Your task to perform on an android device: refresh tabs in the chrome app Image 0: 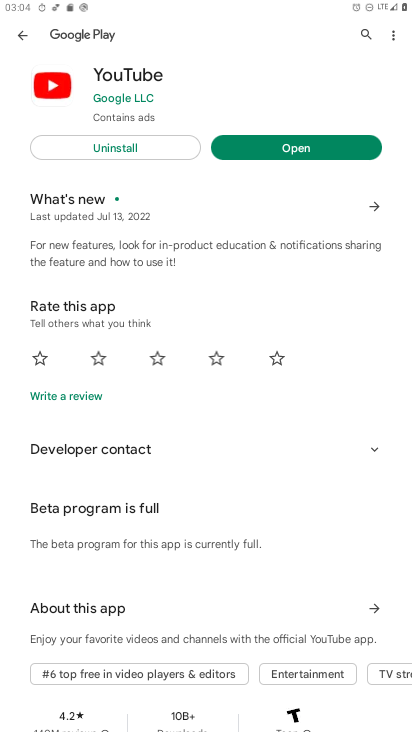
Step 0: press home button
Your task to perform on an android device: refresh tabs in the chrome app Image 1: 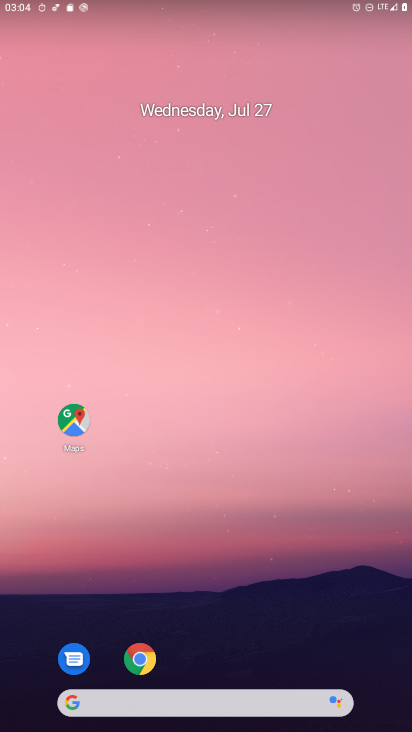
Step 1: drag from (238, 540) to (241, 104)
Your task to perform on an android device: refresh tabs in the chrome app Image 2: 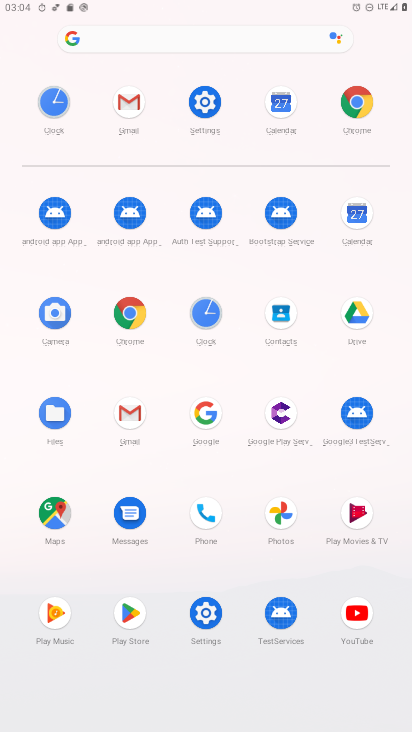
Step 2: click (133, 314)
Your task to perform on an android device: refresh tabs in the chrome app Image 3: 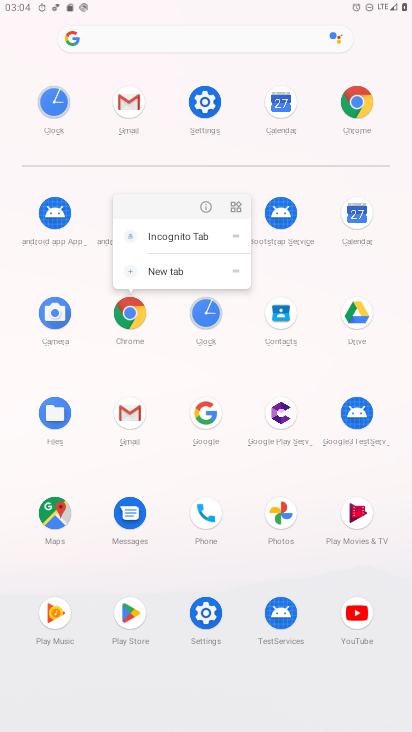
Step 3: click (133, 314)
Your task to perform on an android device: refresh tabs in the chrome app Image 4: 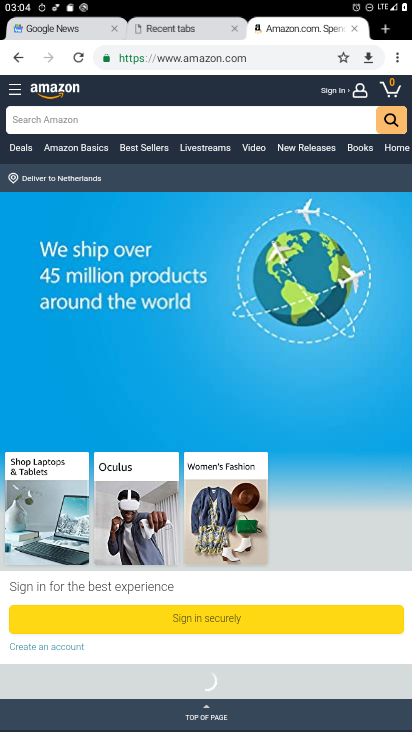
Step 4: drag from (399, 56) to (66, 50)
Your task to perform on an android device: refresh tabs in the chrome app Image 5: 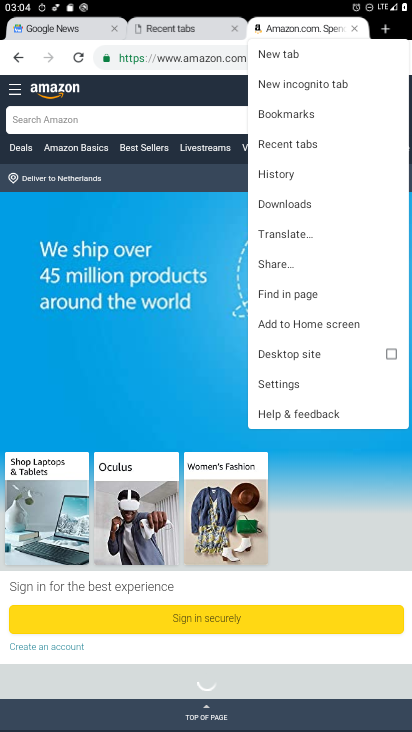
Step 5: click (74, 54)
Your task to perform on an android device: refresh tabs in the chrome app Image 6: 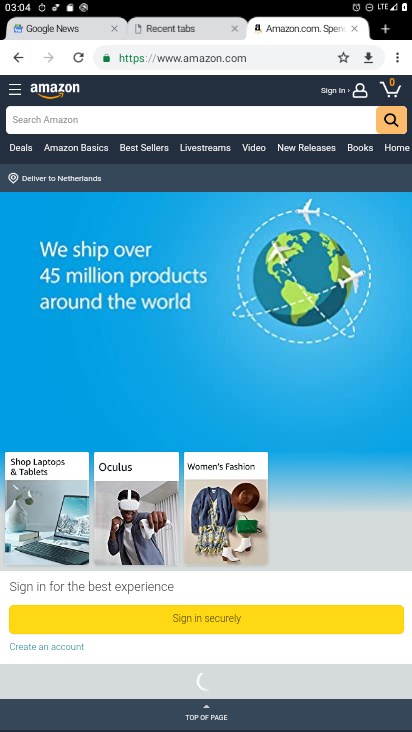
Step 6: task complete